Your task to perform on an android device: toggle show notifications on the lock screen Image 0: 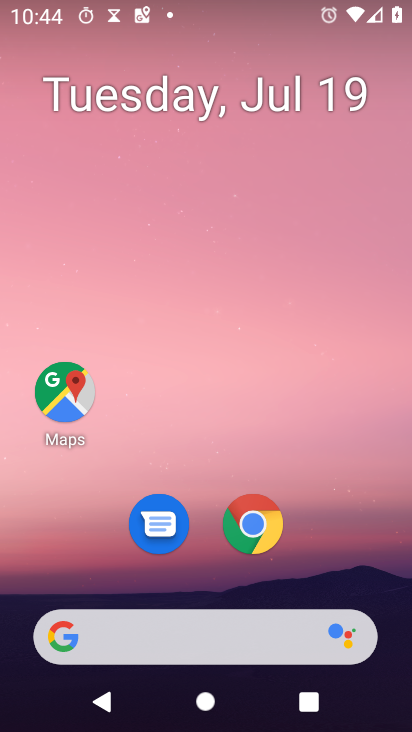
Step 0: drag from (178, 641) to (210, 99)
Your task to perform on an android device: toggle show notifications on the lock screen Image 1: 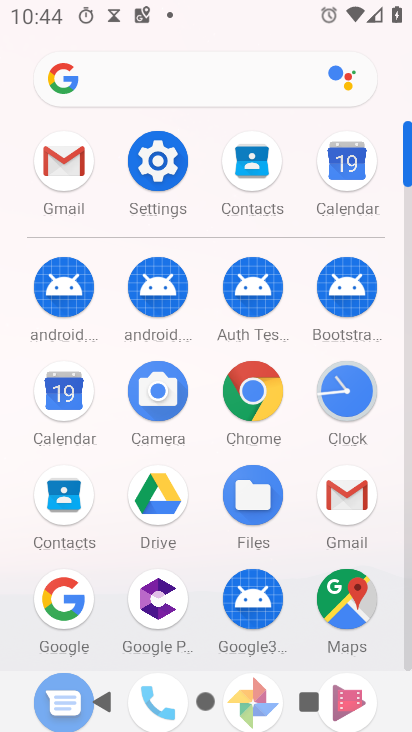
Step 1: click (166, 164)
Your task to perform on an android device: toggle show notifications on the lock screen Image 2: 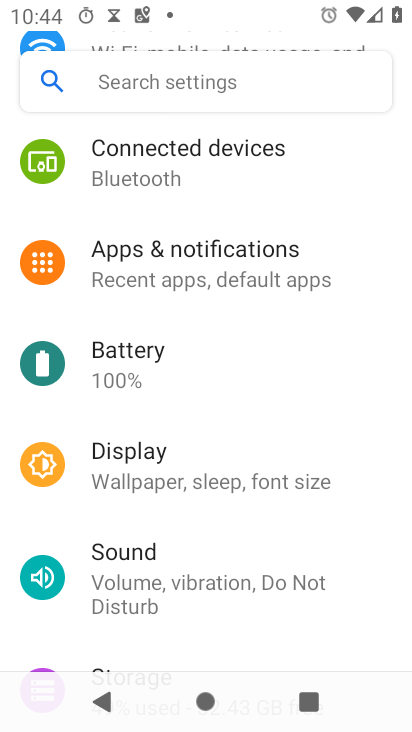
Step 2: drag from (301, 398) to (269, 616)
Your task to perform on an android device: toggle show notifications on the lock screen Image 3: 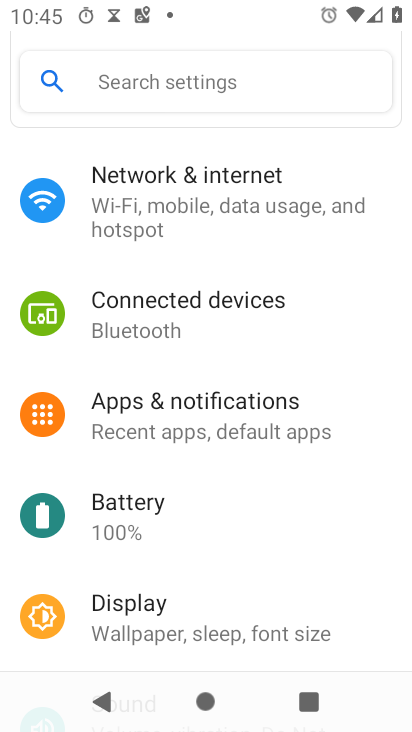
Step 3: click (212, 400)
Your task to perform on an android device: toggle show notifications on the lock screen Image 4: 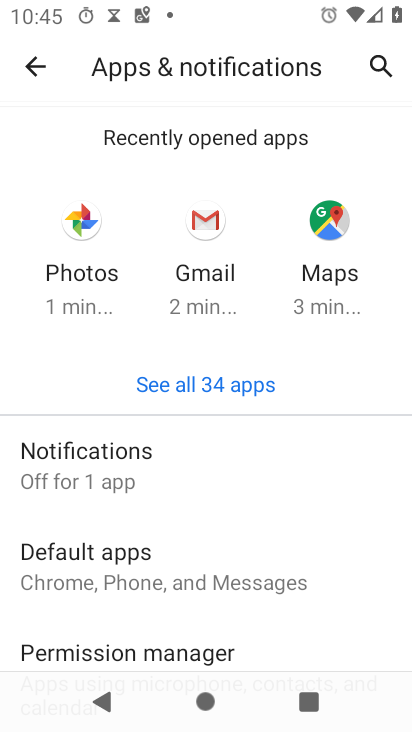
Step 4: click (99, 464)
Your task to perform on an android device: toggle show notifications on the lock screen Image 5: 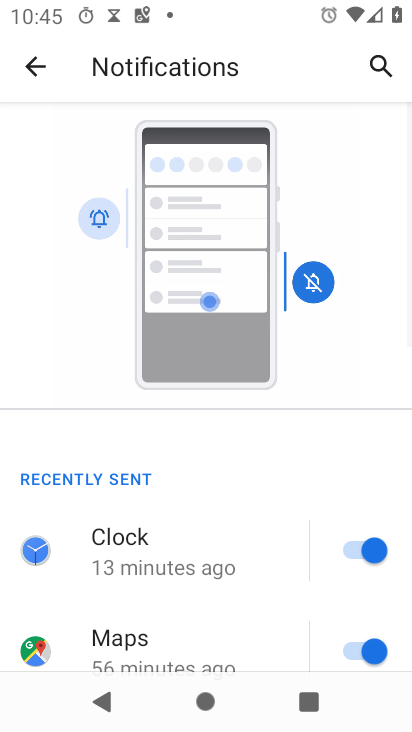
Step 5: drag from (201, 600) to (340, 249)
Your task to perform on an android device: toggle show notifications on the lock screen Image 6: 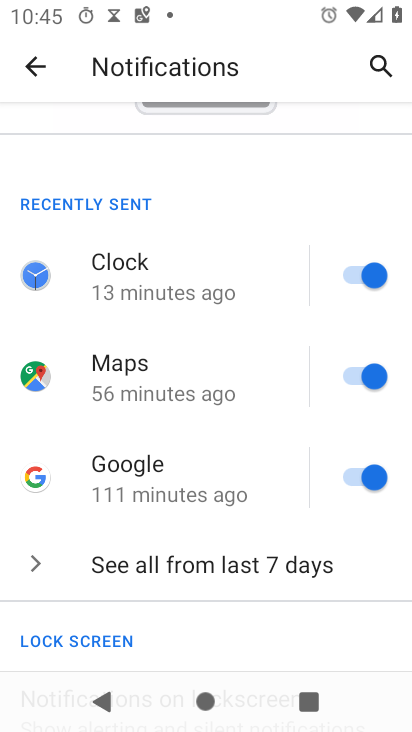
Step 6: drag from (209, 596) to (296, 289)
Your task to perform on an android device: toggle show notifications on the lock screen Image 7: 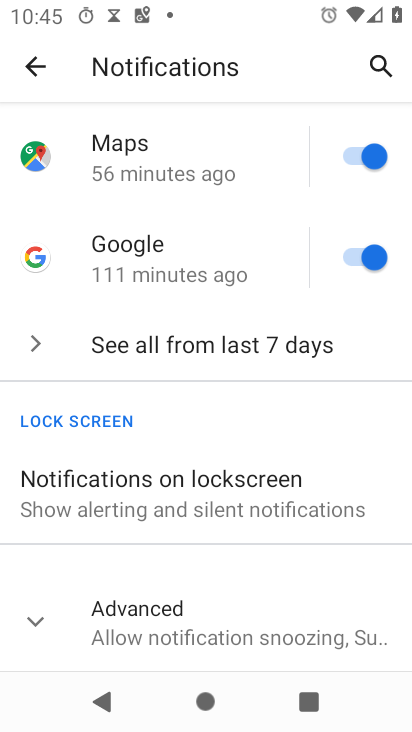
Step 7: click (239, 491)
Your task to perform on an android device: toggle show notifications on the lock screen Image 8: 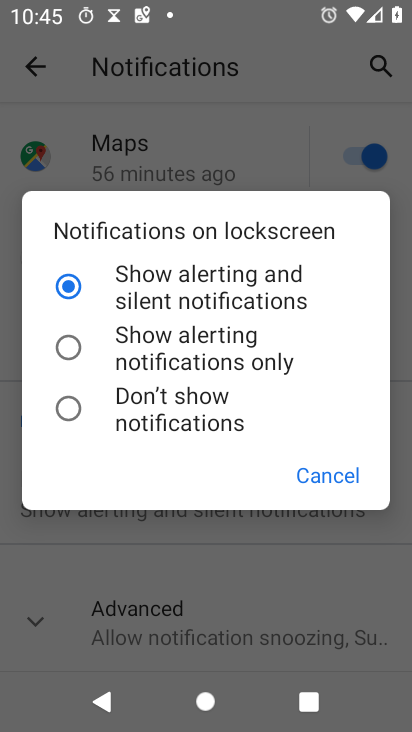
Step 8: click (69, 403)
Your task to perform on an android device: toggle show notifications on the lock screen Image 9: 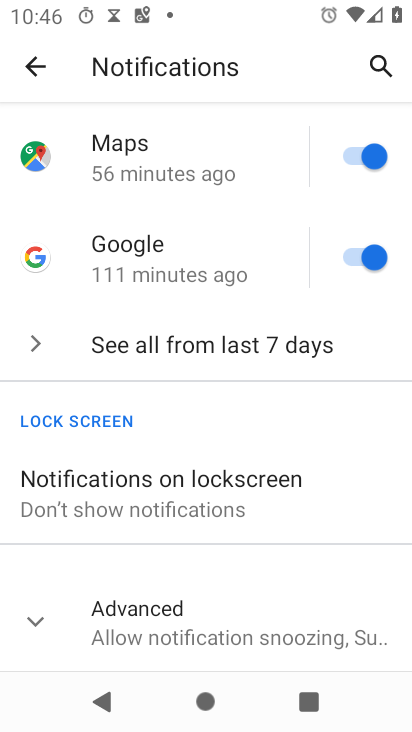
Step 9: task complete